Your task to perform on an android device: Show me popular videos on Youtube Image 0: 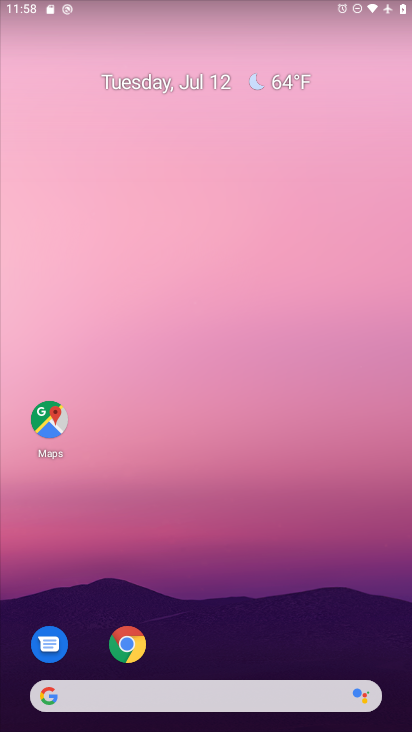
Step 0: drag from (266, 637) to (250, 146)
Your task to perform on an android device: Show me popular videos on Youtube Image 1: 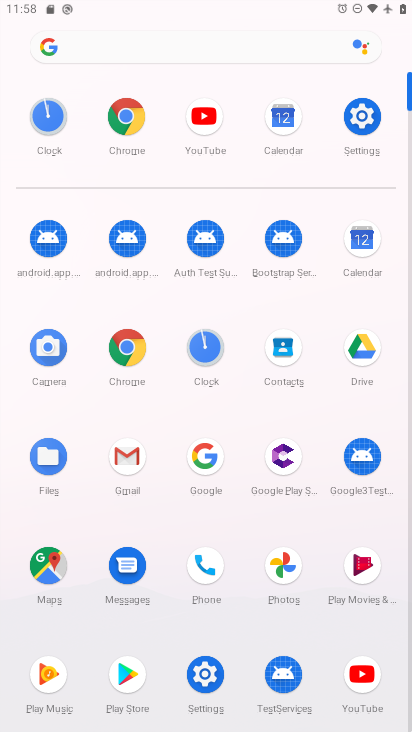
Step 1: click (212, 146)
Your task to perform on an android device: Show me popular videos on Youtube Image 2: 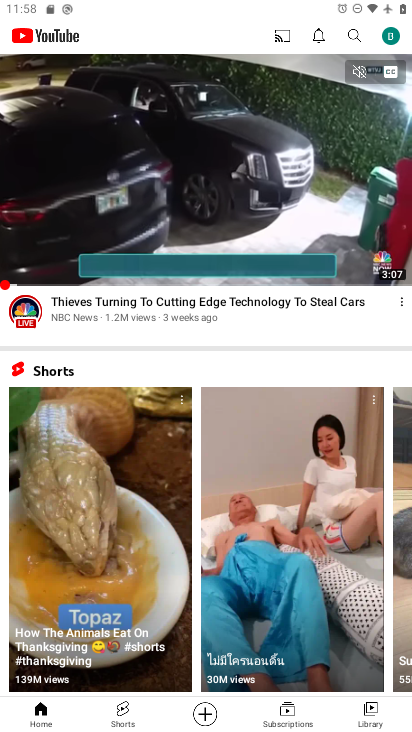
Step 2: click (262, 570)
Your task to perform on an android device: Show me popular videos on Youtube Image 3: 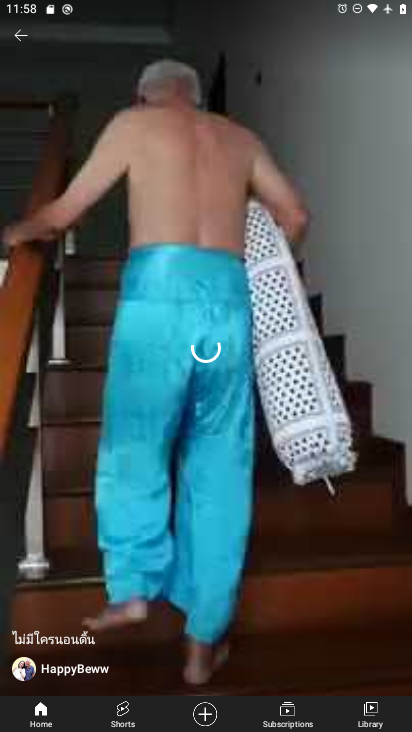
Step 3: task complete